Your task to perform on an android device: delete browsing data in the chrome app Image 0: 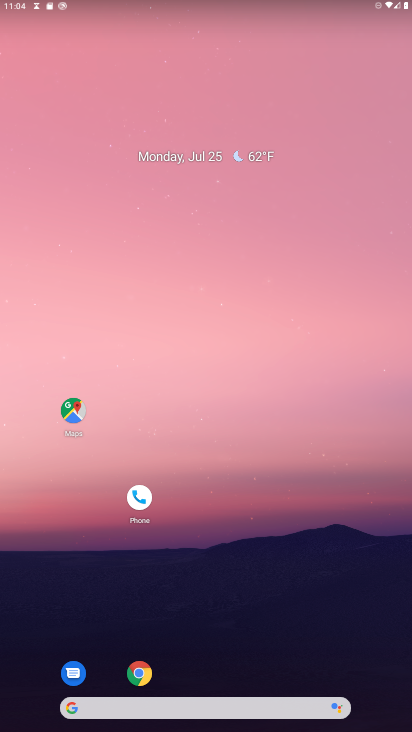
Step 0: press home button
Your task to perform on an android device: delete browsing data in the chrome app Image 1: 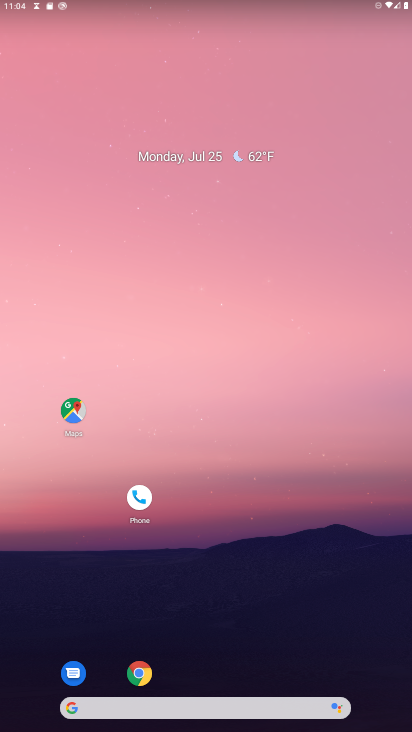
Step 1: drag from (290, 628) to (279, 147)
Your task to perform on an android device: delete browsing data in the chrome app Image 2: 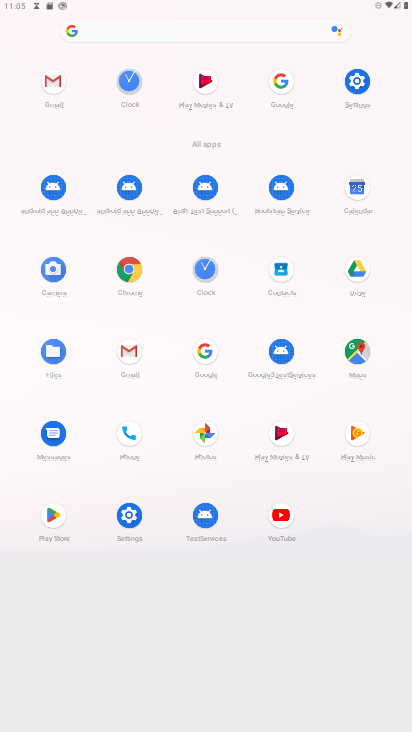
Step 2: click (115, 277)
Your task to perform on an android device: delete browsing data in the chrome app Image 3: 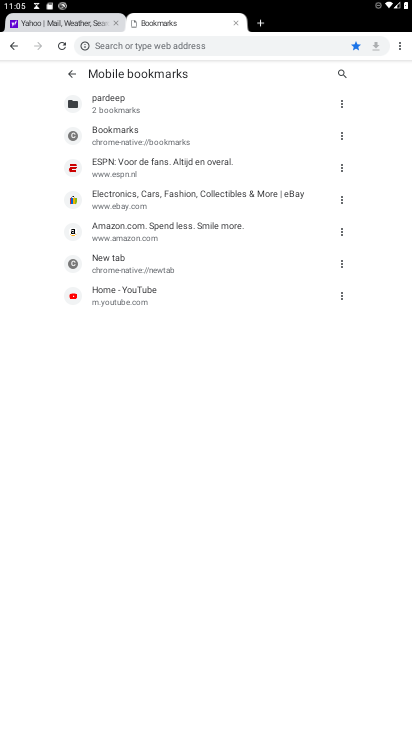
Step 3: click (9, 41)
Your task to perform on an android device: delete browsing data in the chrome app Image 4: 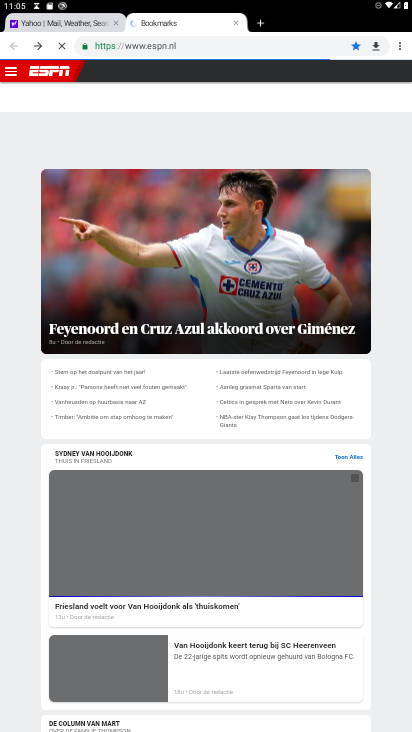
Step 4: drag from (397, 39) to (299, 276)
Your task to perform on an android device: delete browsing data in the chrome app Image 5: 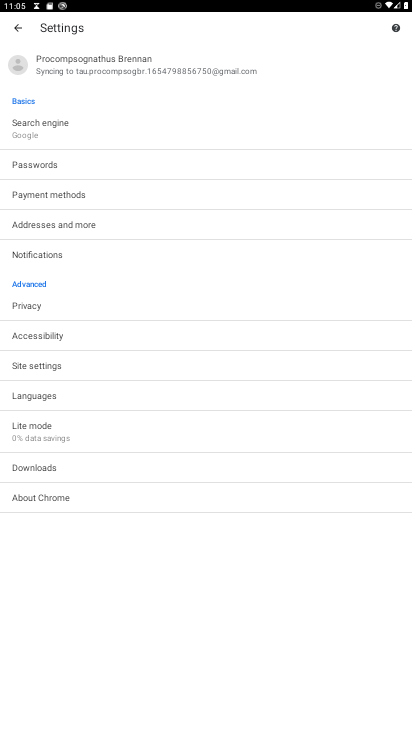
Step 5: click (29, 307)
Your task to perform on an android device: delete browsing data in the chrome app Image 6: 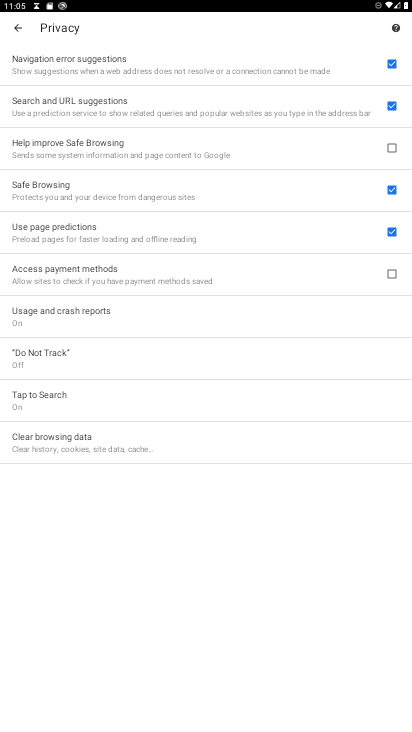
Step 6: click (29, 440)
Your task to perform on an android device: delete browsing data in the chrome app Image 7: 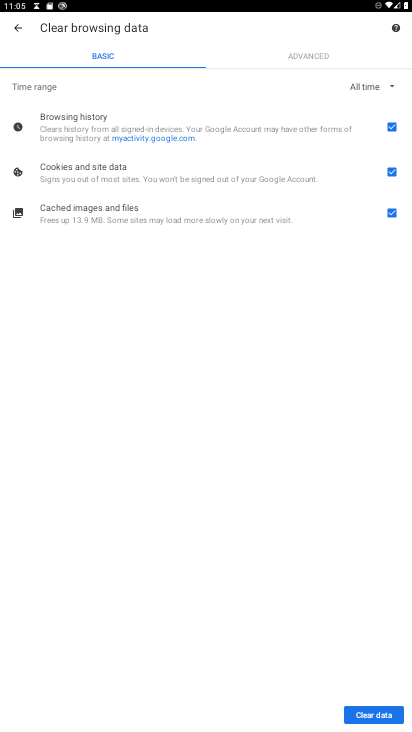
Step 7: click (385, 169)
Your task to perform on an android device: delete browsing data in the chrome app Image 8: 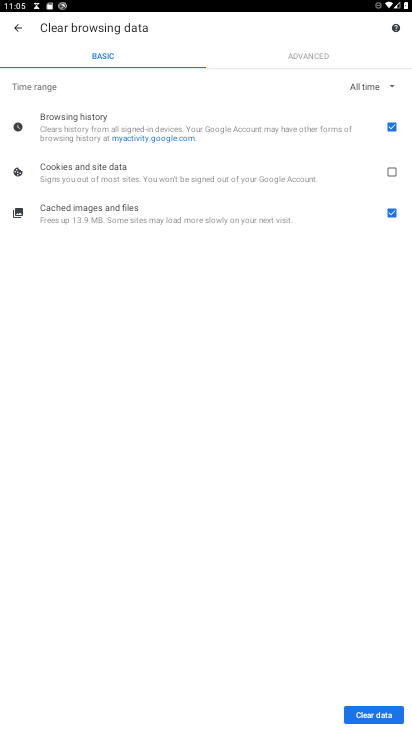
Step 8: click (392, 213)
Your task to perform on an android device: delete browsing data in the chrome app Image 9: 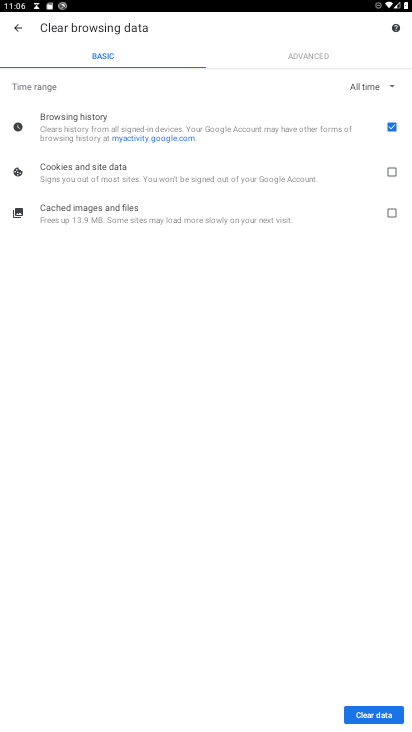
Step 9: click (374, 714)
Your task to perform on an android device: delete browsing data in the chrome app Image 10: 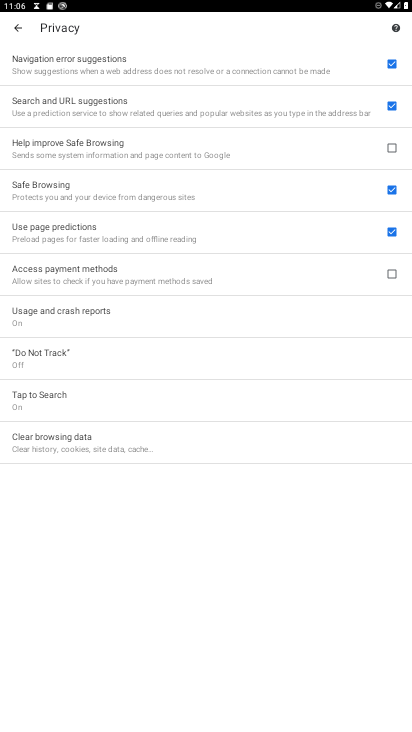
Step 10: task complete